Your task to perform on an android device: Open the stopwatch Image 0: 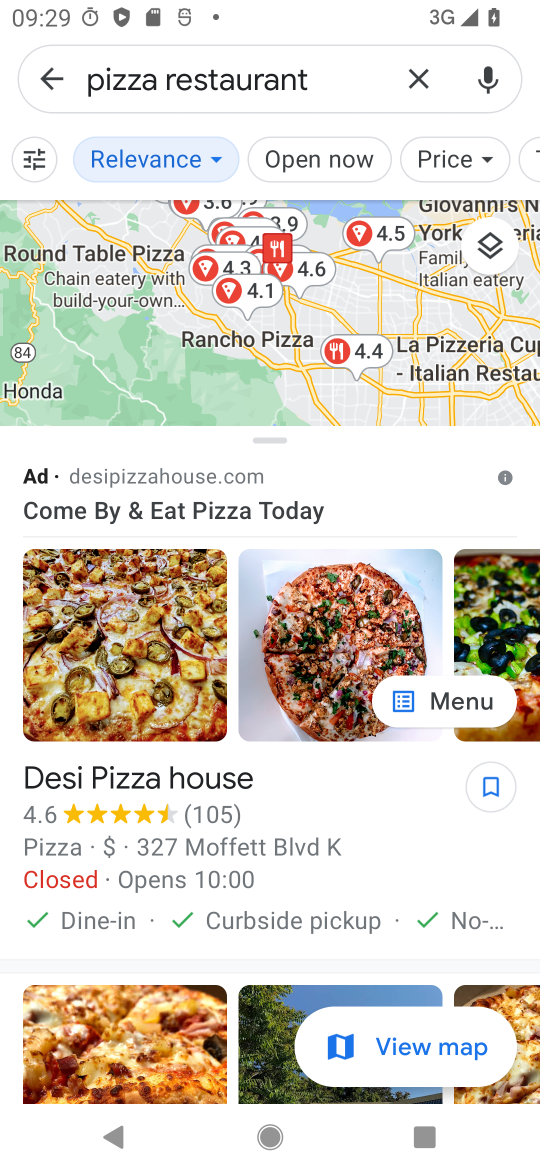
Step 0: press home button
Your task to perform on an android device: Open the stopwatch Image 1: 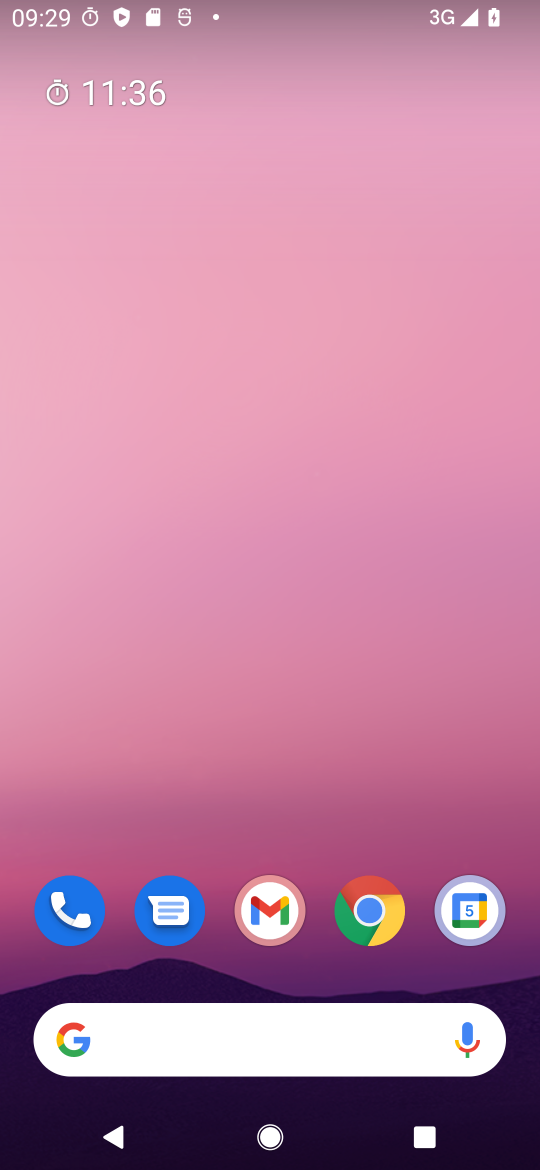
Step 1: drag from (260, 1033) to (341, 21)
Your task to perform on an android device: Open the stopwatch Image 2: 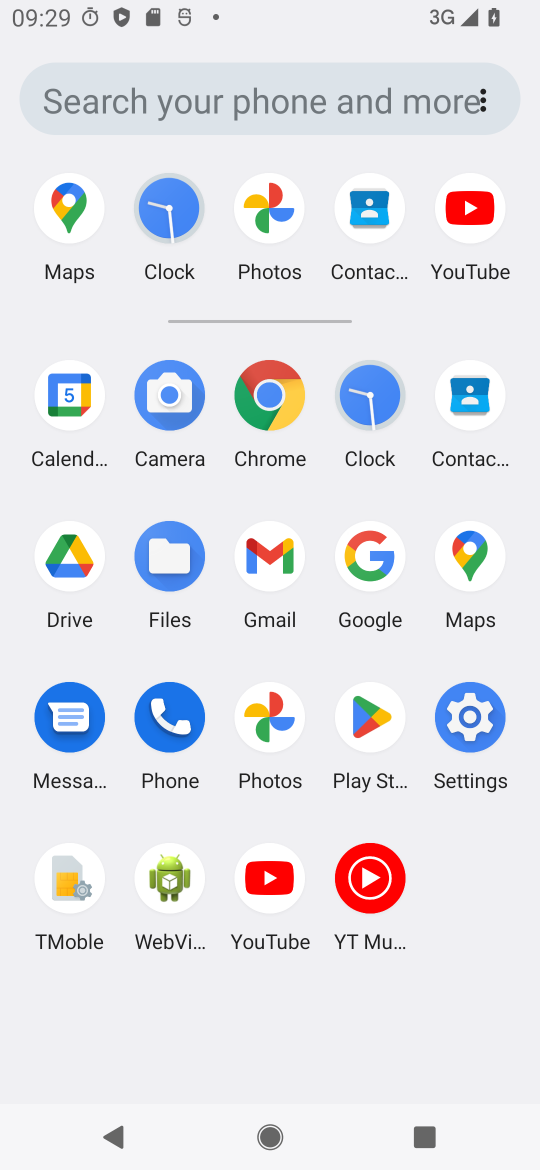
Step 2: click (368, 397)
Your task to perform on an android device: Open the stopwatch Image 3: 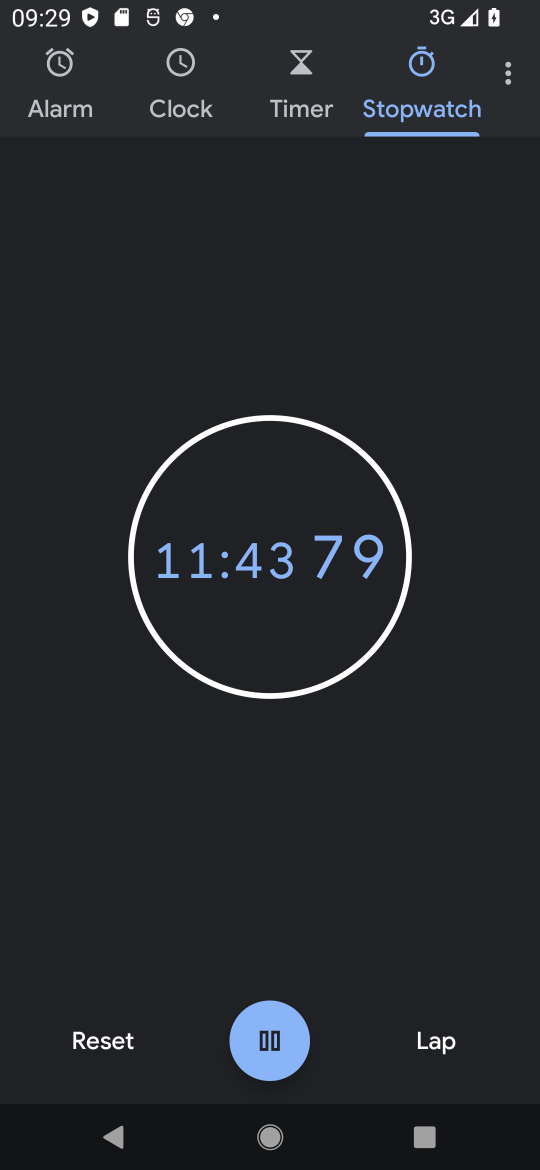
Step 3: task complete